Your task to perform on an android device: Search for "usb-c to usb-a" on newegg, select the first entry, and add it to the cart. Image 0: 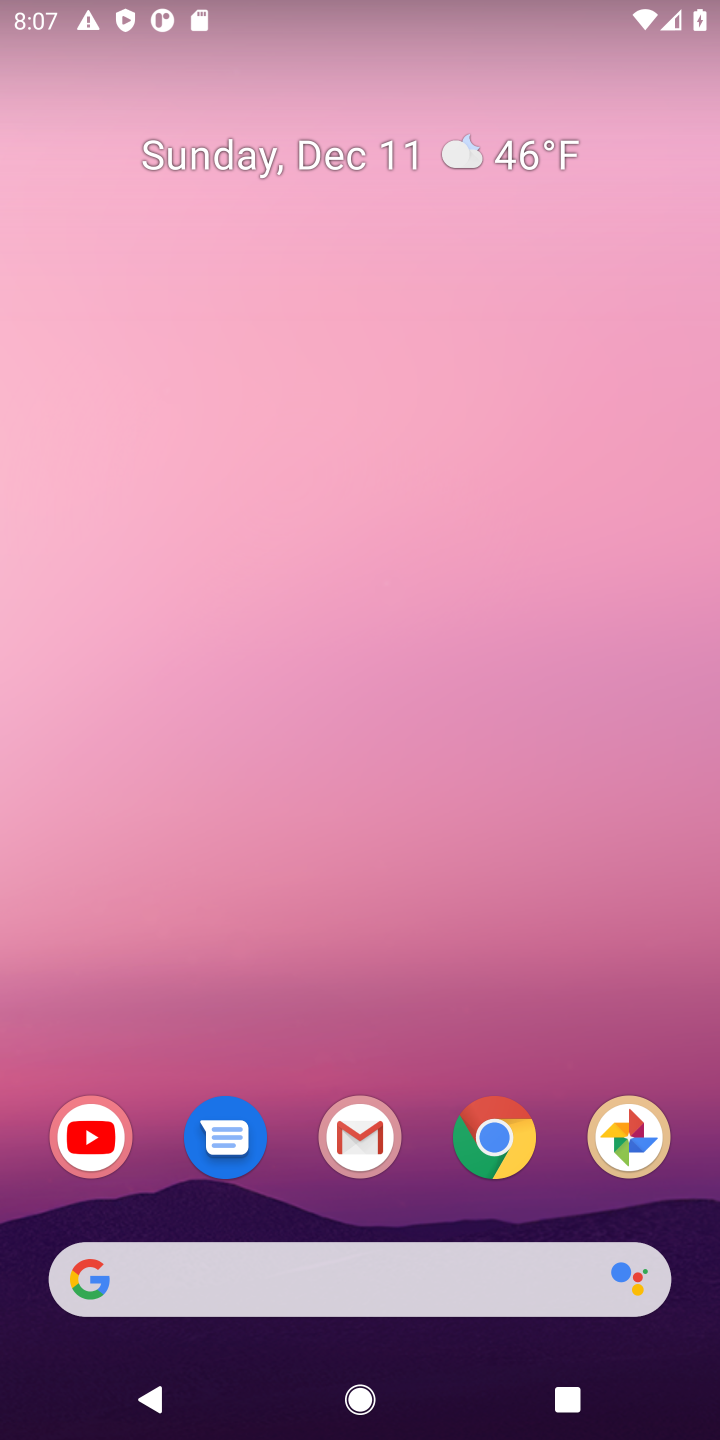
Step 0: click (508, 1150)
Your task to perform on an android device: Search for "usb-c to usb-a" on newegg, select the first entry, and add it to the cart. Image 1: 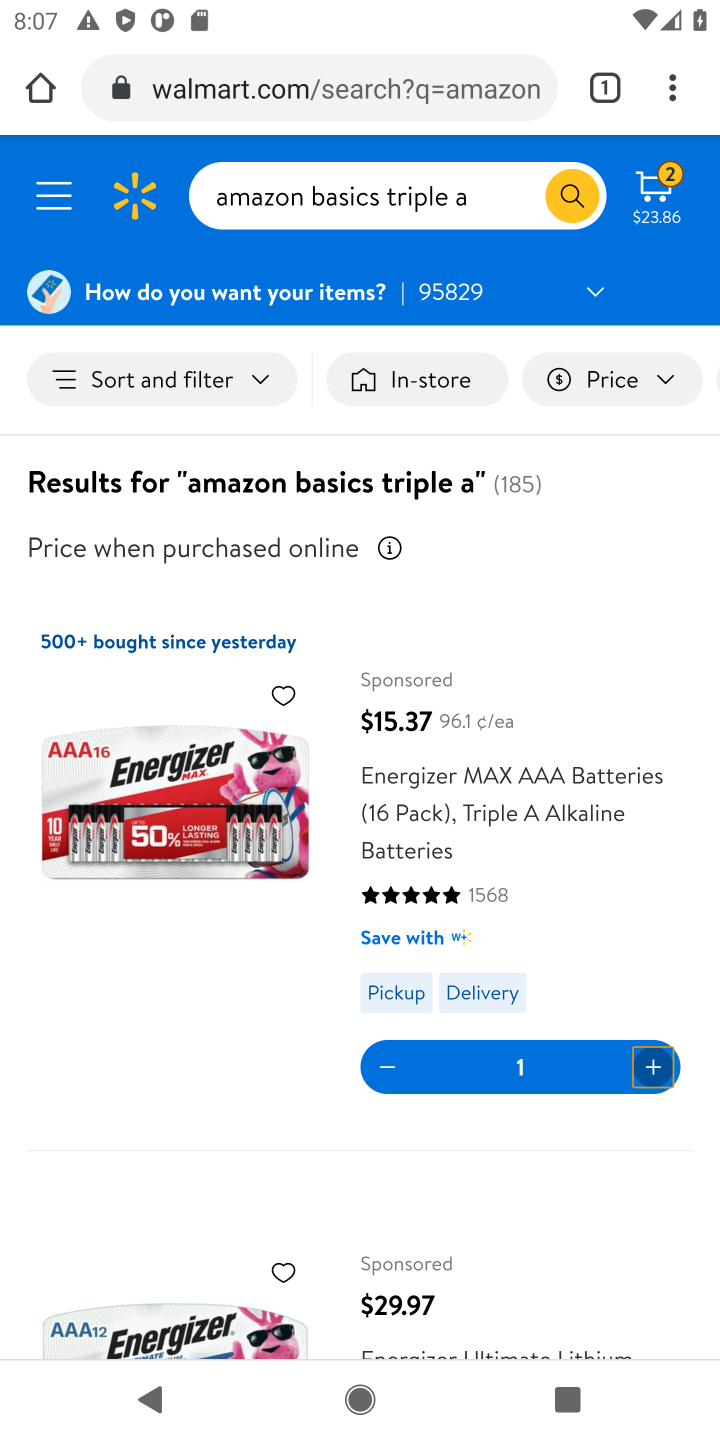
Step 1: click (405, 83)
Your task to perform on an android device: Search for "usb-c to usb-a" on newegg, select the first entry, and add it to the cart. Image 2: 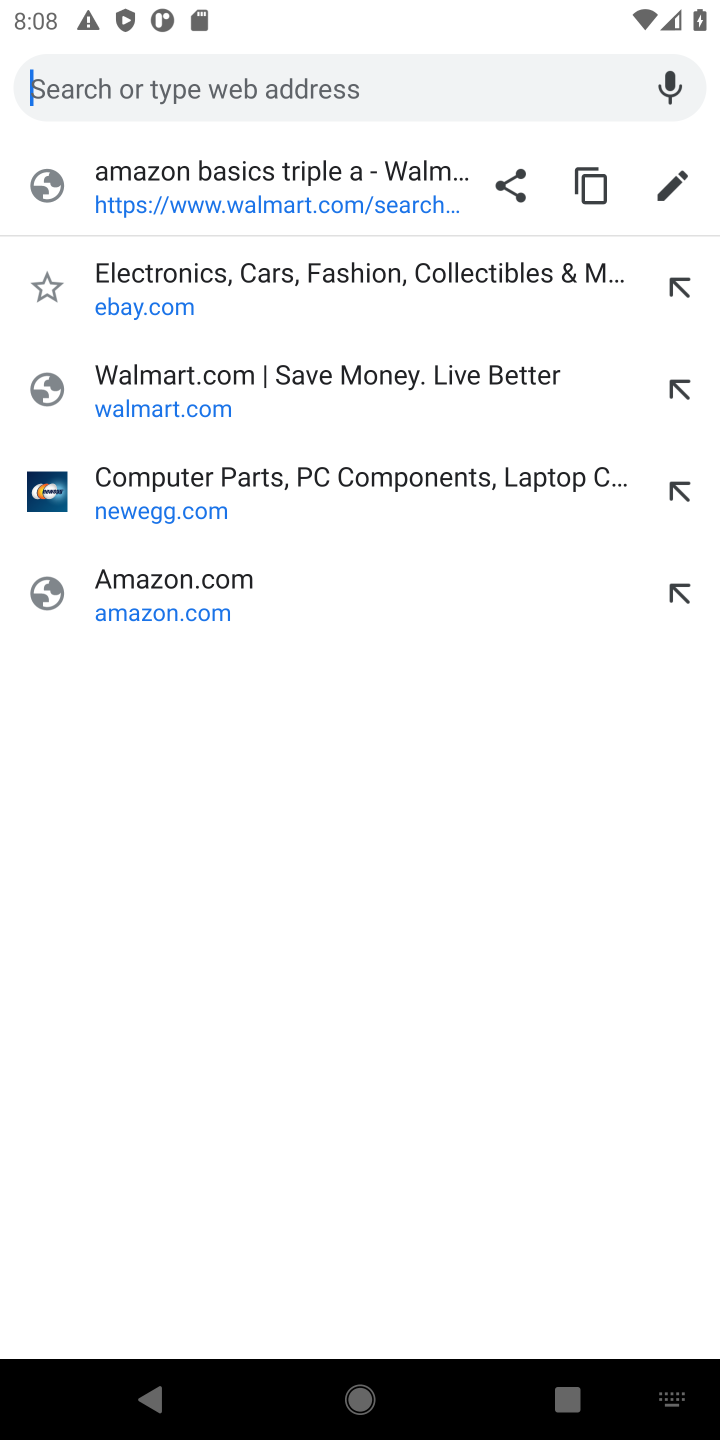
Step 2: type "NEWEGG"
Your task to perform on an android device: Search for "usb-c to usb-a" on newegg, select the first entry, and add it to the cart. Image 3: 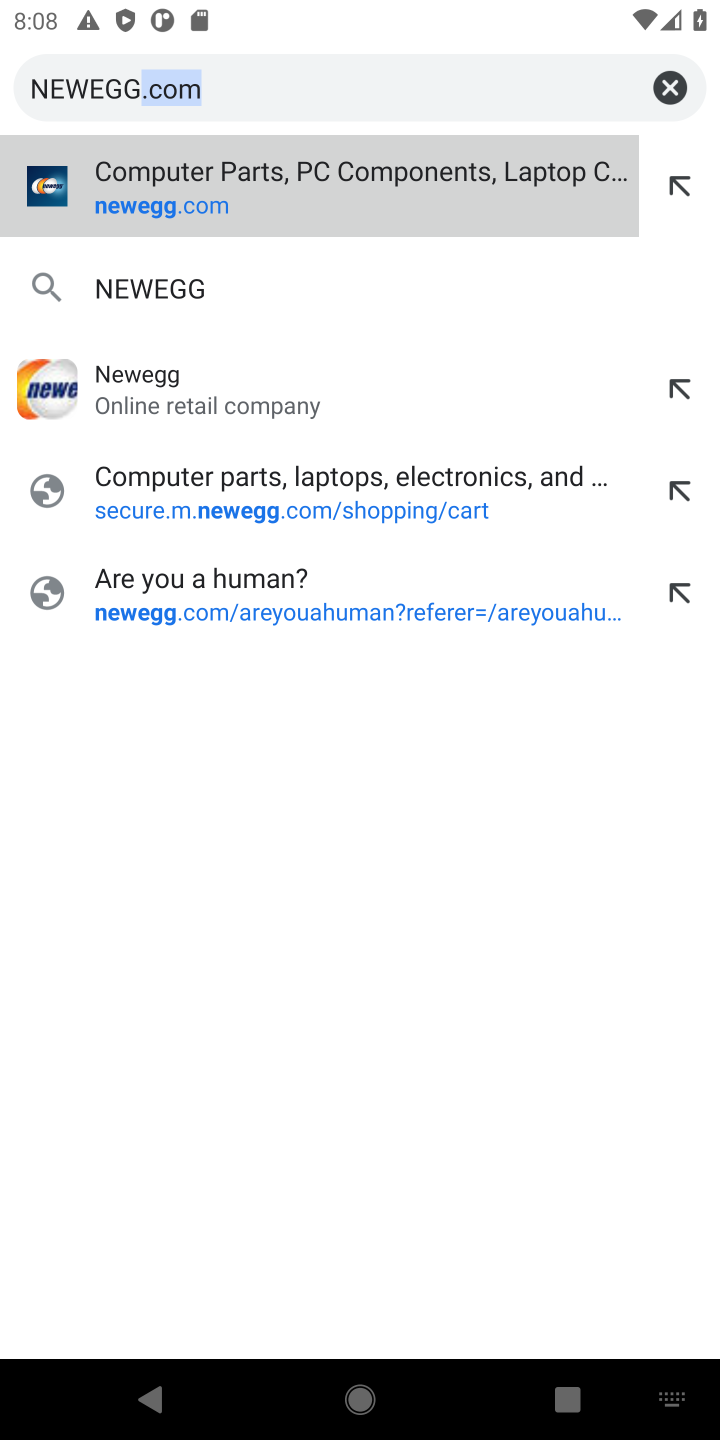
Step 3: click (400, 209)
Your task to perform on an android device: Search for "usb-c to usb-a" on newegg, select the first entry, and add it to the cart. Image 4: 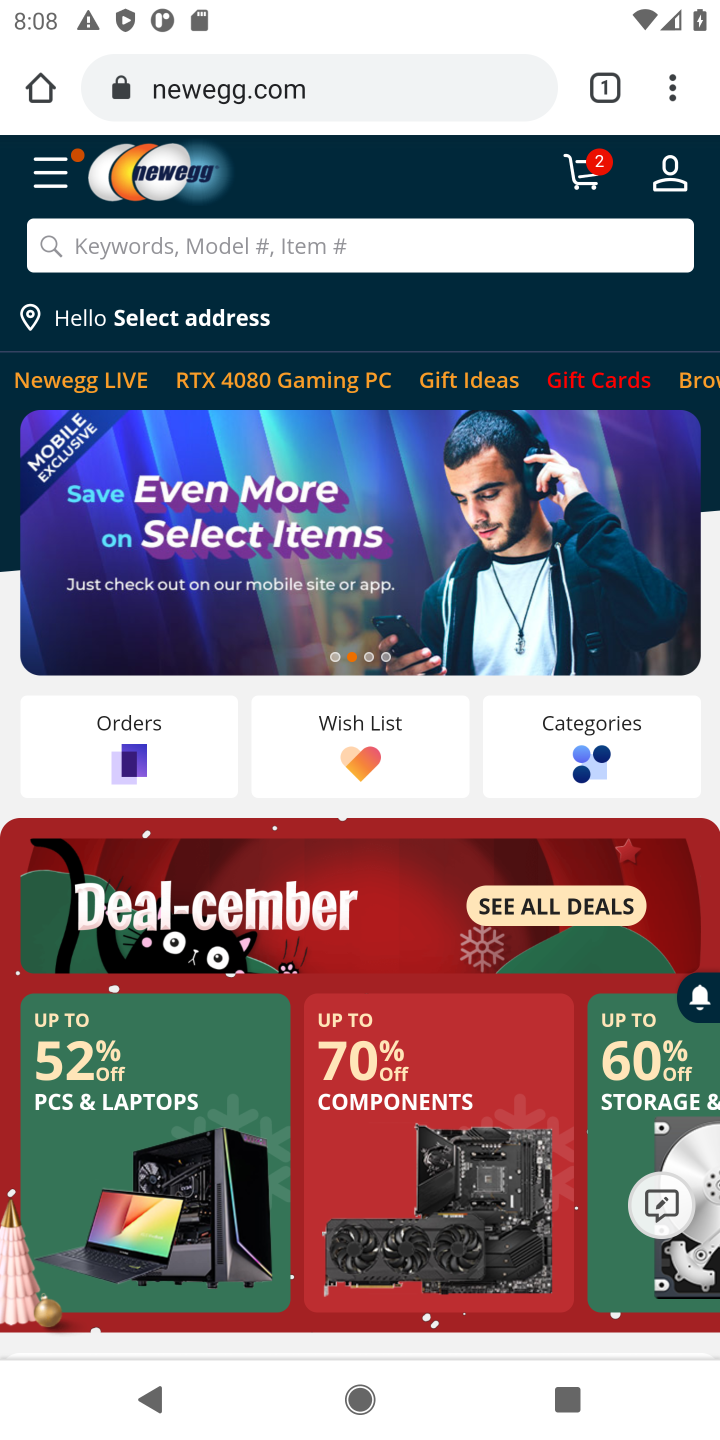
Step 4: click (301, 243)
Your task to perform on an android device: Search for "usb-c to usb-a" on newegg, select the first entry, and add it to the cart. Image 5: 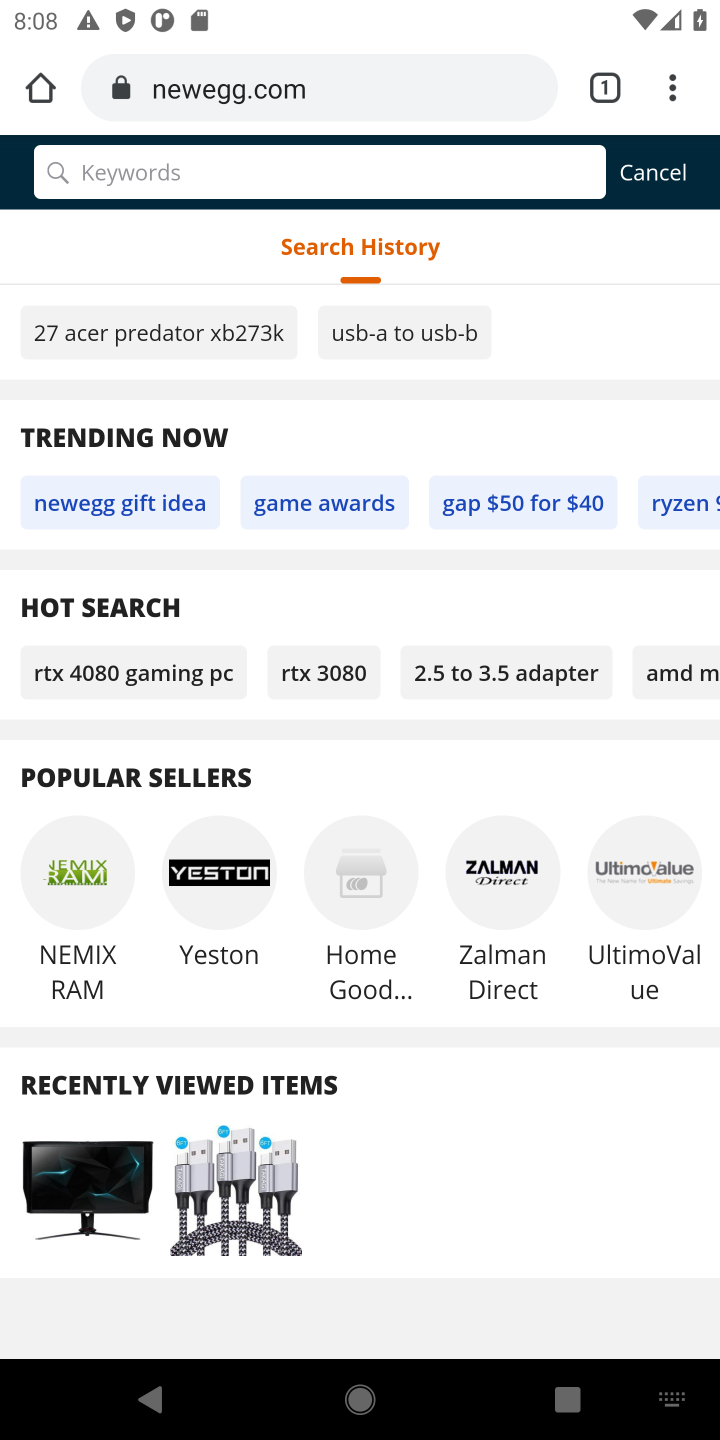
Step 5: type "usb-c to usb-a"
Your task to perform on an android device: Search for "usb-c to usb-a" on newegg, select the first entry, and add it to the cart. Image 6: 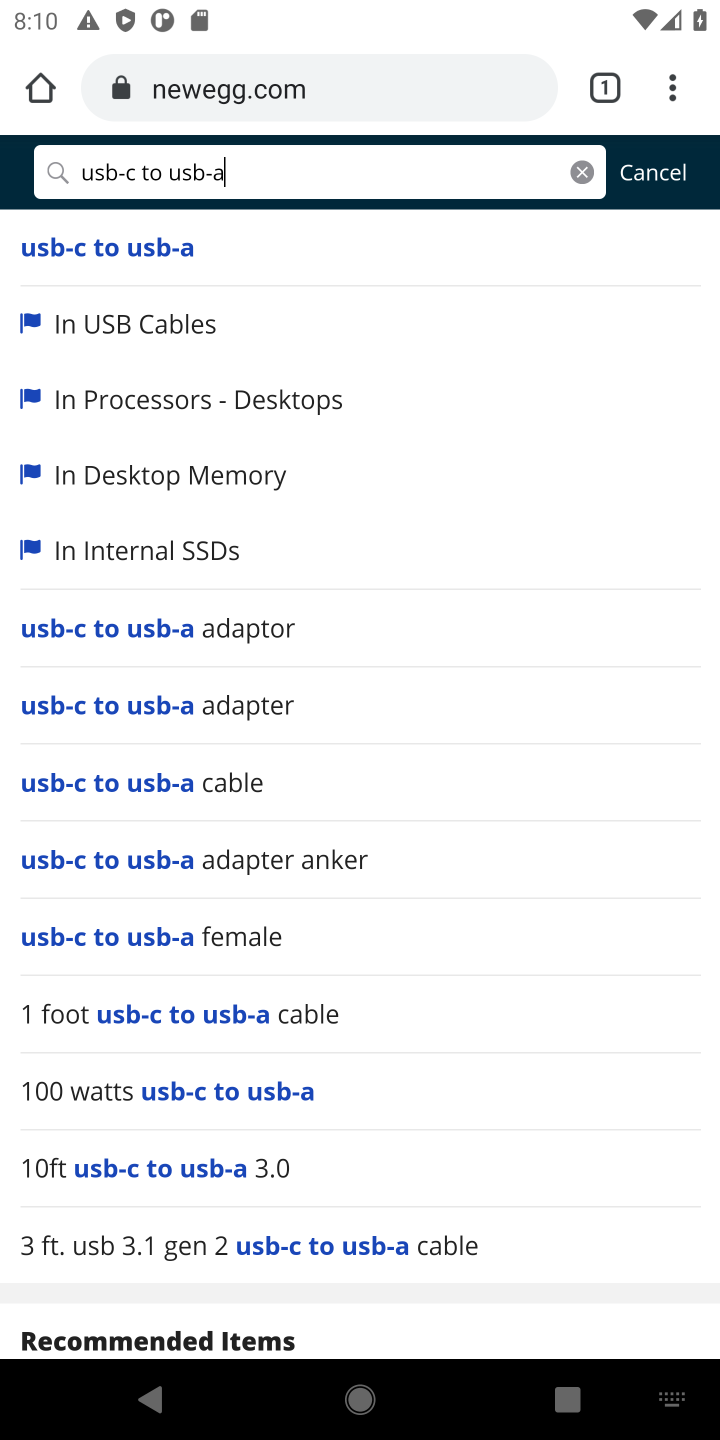
Step 6: click (160, 327)
Your task to perform on an android device: Search for "usb-c to usb-a" on newegg, select the first entry, and add it to the cart. Image 7: 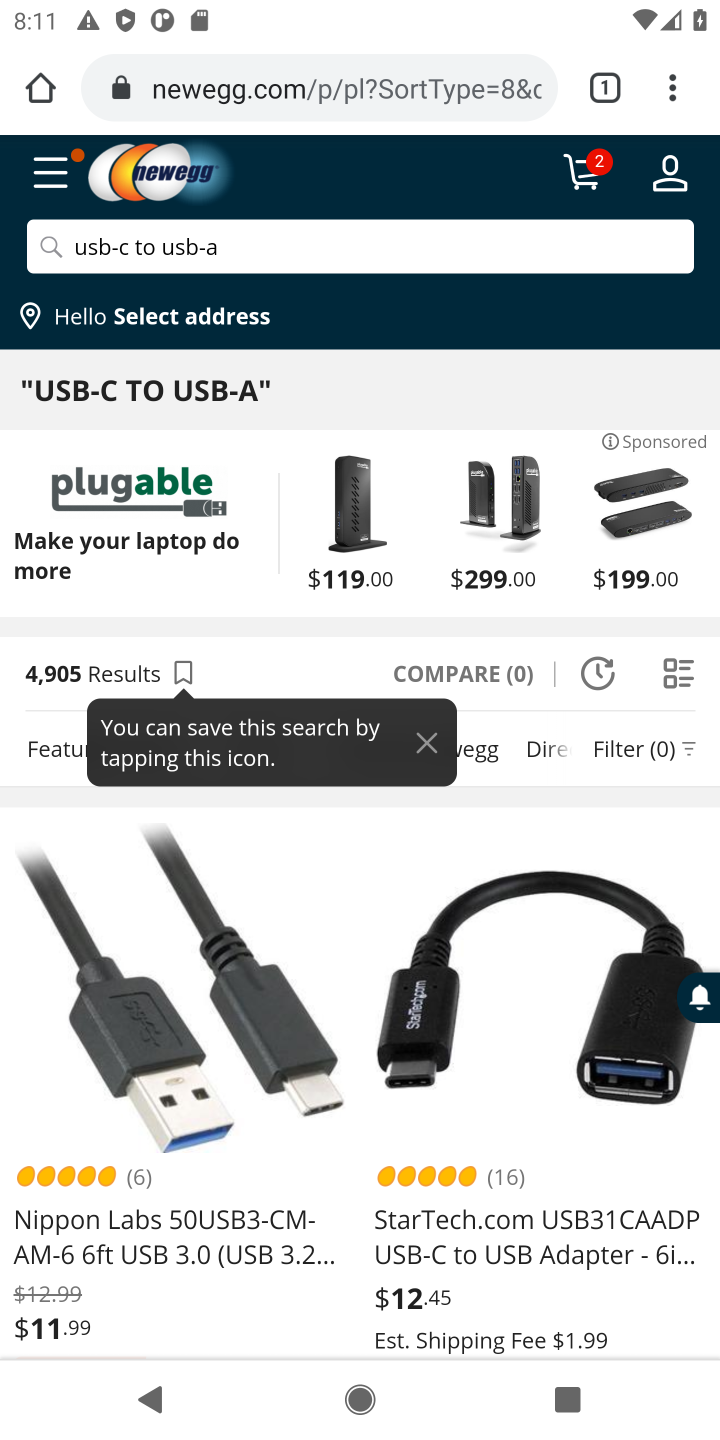
Step 7: click (253, 1096)
Your task to perform on an android device: Search for "usb-c to usb-a" on newegg, select the first entry, and add it to the cart. Image 8: 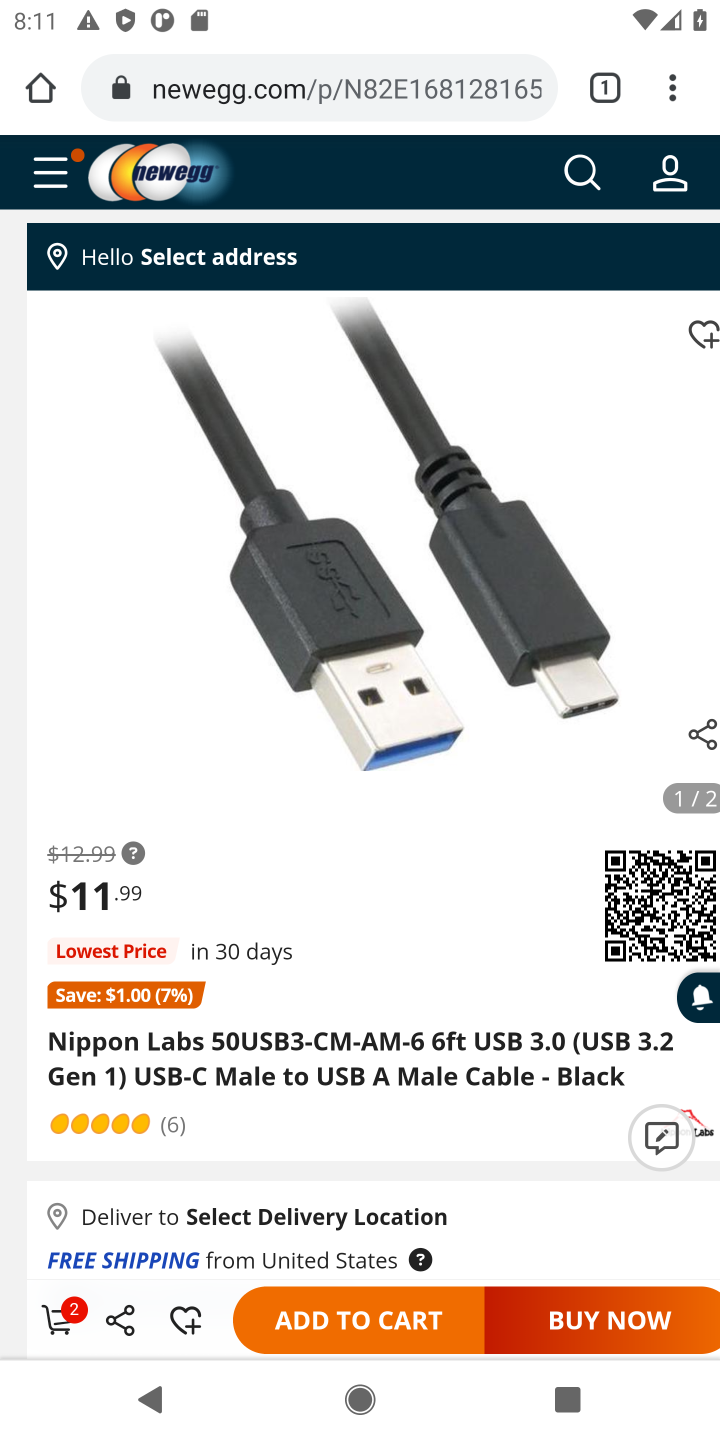
Step 8: click (312, 1334)
Your task to perform on an android device: Search for "usb-c to usb-a" on newegg, select the first entry, and add it to the cart. Image 9: 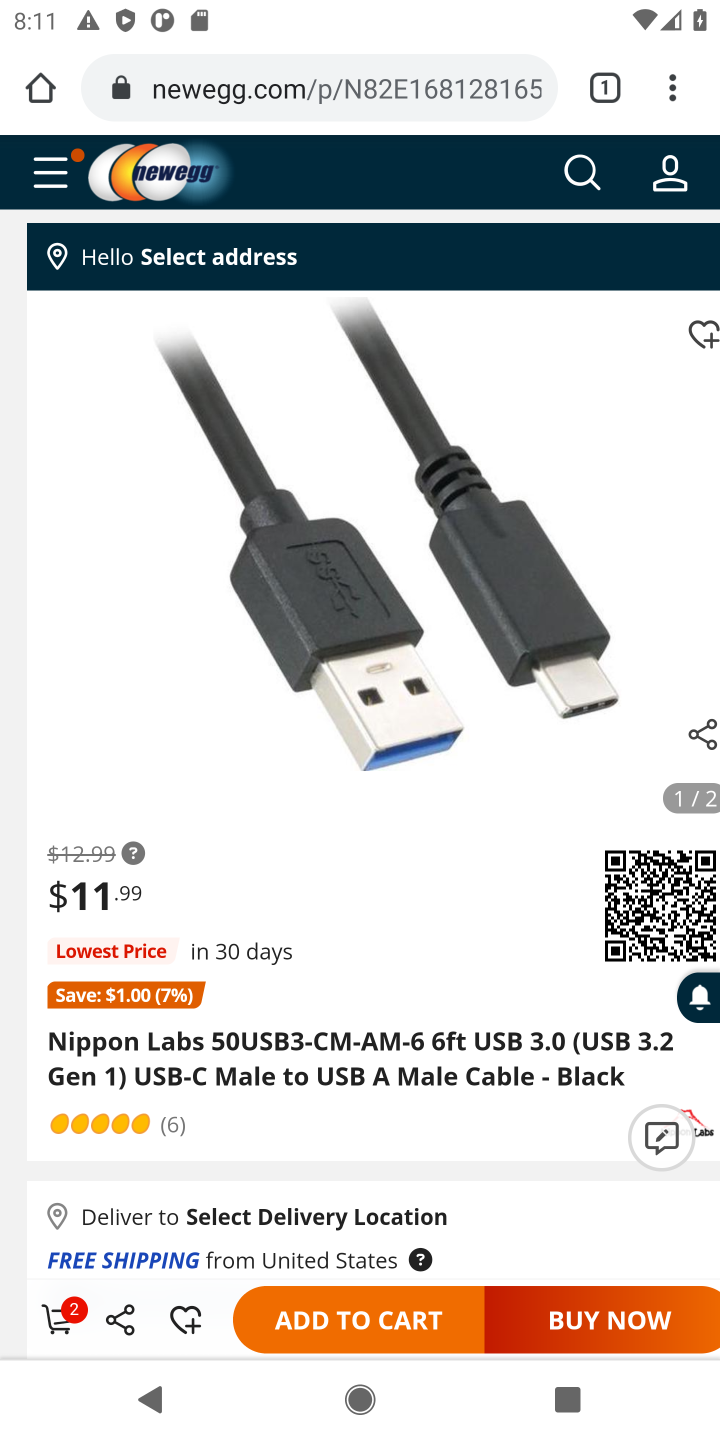
Step 9: task complete